Your task to perform on an android device: Go to Google maps Image 0: 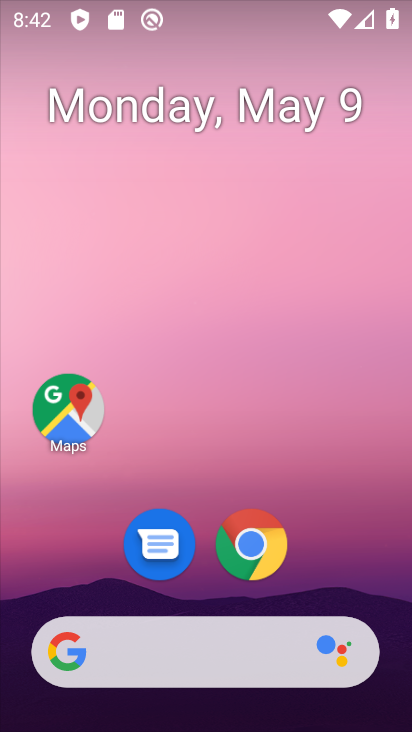
Step 0: click (67, 411)
Your task to perform on an android device: Go to Google maps Image 1: 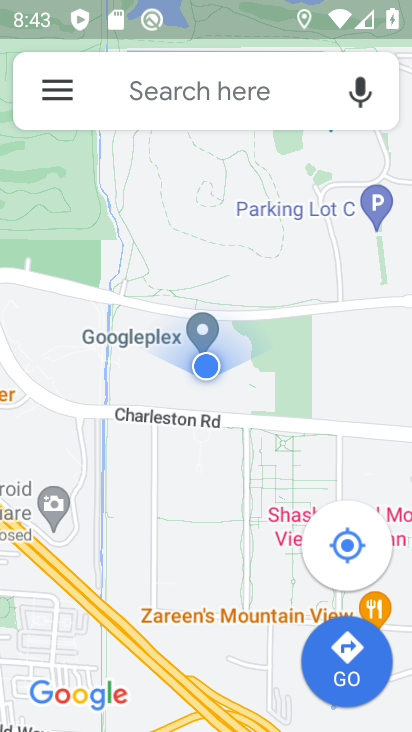
Step 1: task complete